Your task to perform on an android device: Play the last video I watched on Youtube Image 0: 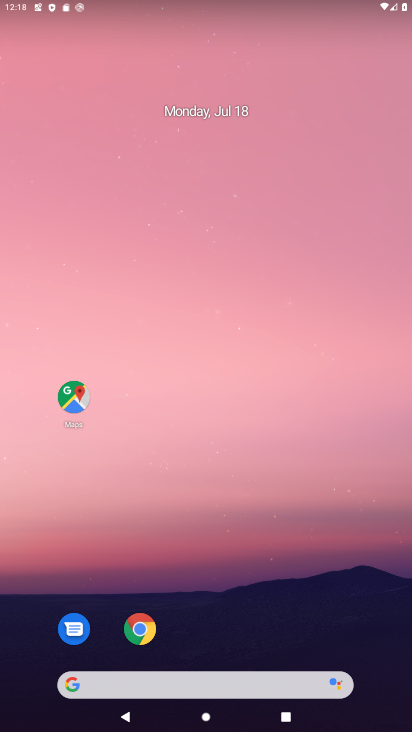
Step 0: drag from (255, 626) to (247, 241)
Your task to perform on an android device: Play the last video I watched on Youtube Image 1: 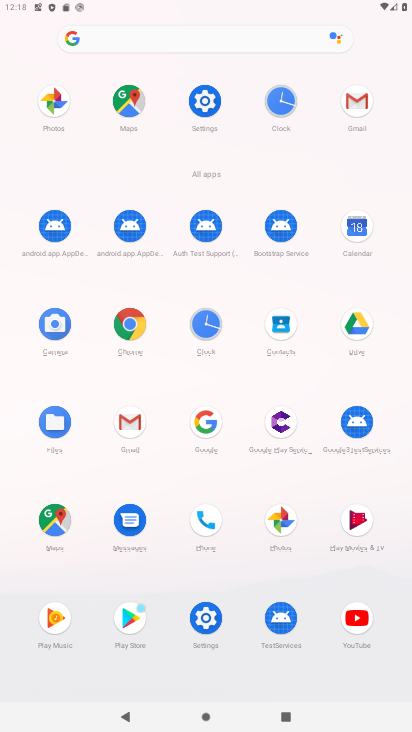
Step 1: click (349, 612)
Your task to perform on an android device: Play the last video I watched on Youtube Image 2: 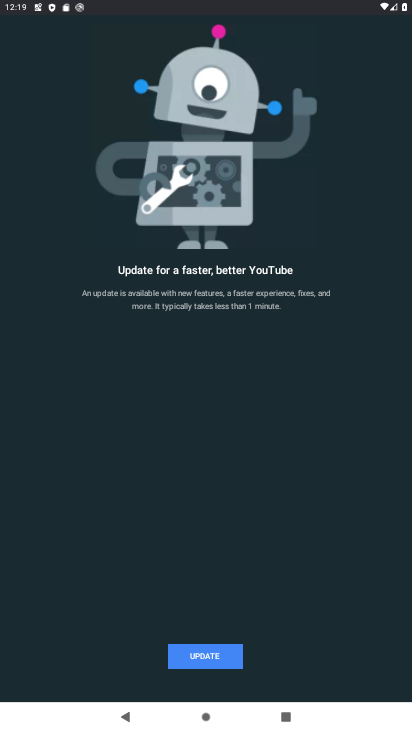
Step 2: task complete